Your task to perform on an android device: Turn off the flashlight Image 0: 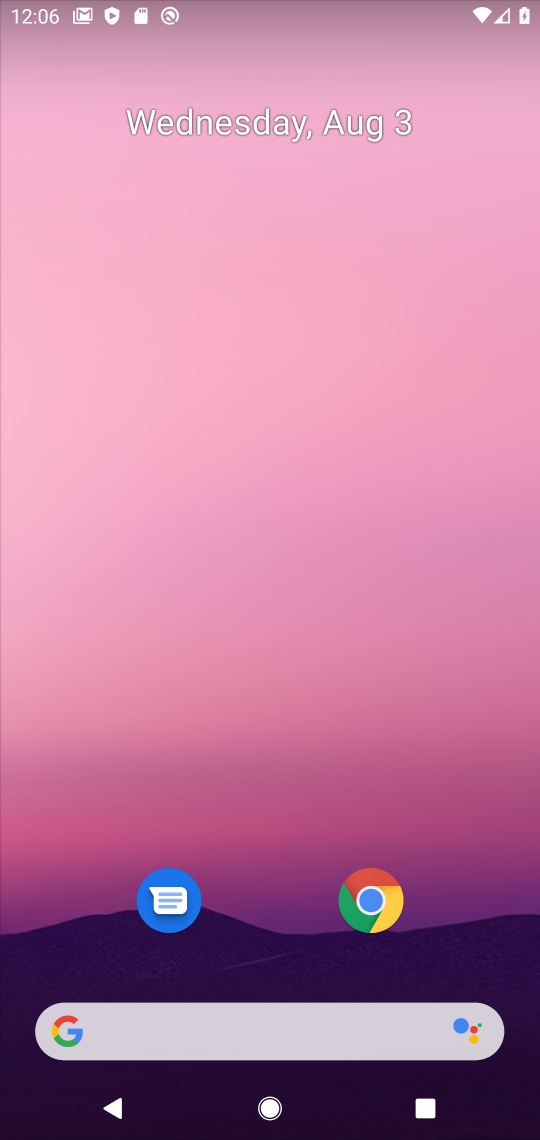
Step 0: drag from (247, 732) to (315, 158)
Your task to perform on an android device: Turn off the flashlight Image 1: 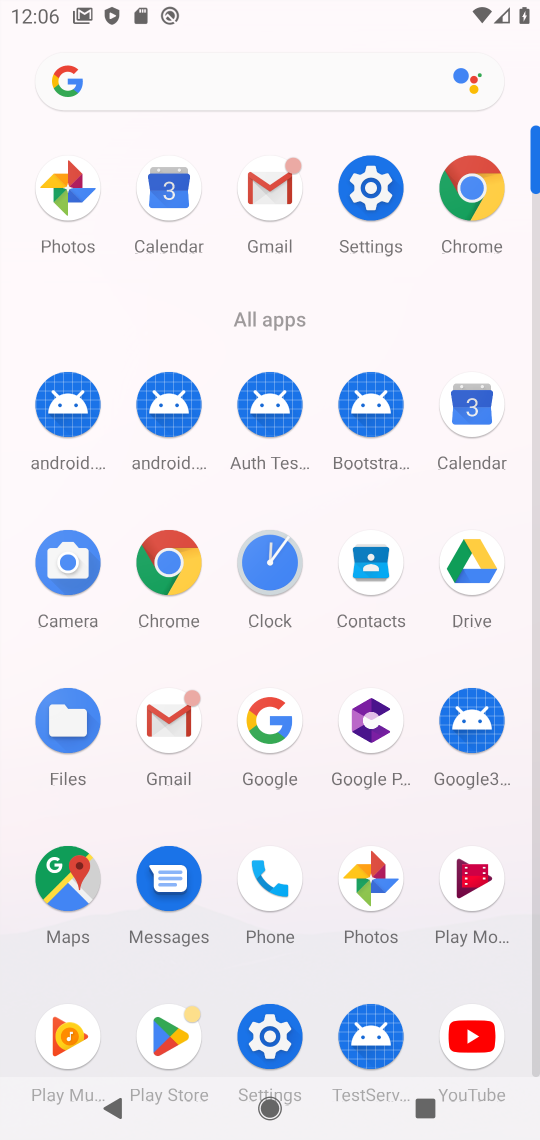
Step 1: click (359, 196)
Your task to perform on an android device: Turn off the flashlight Image 2: 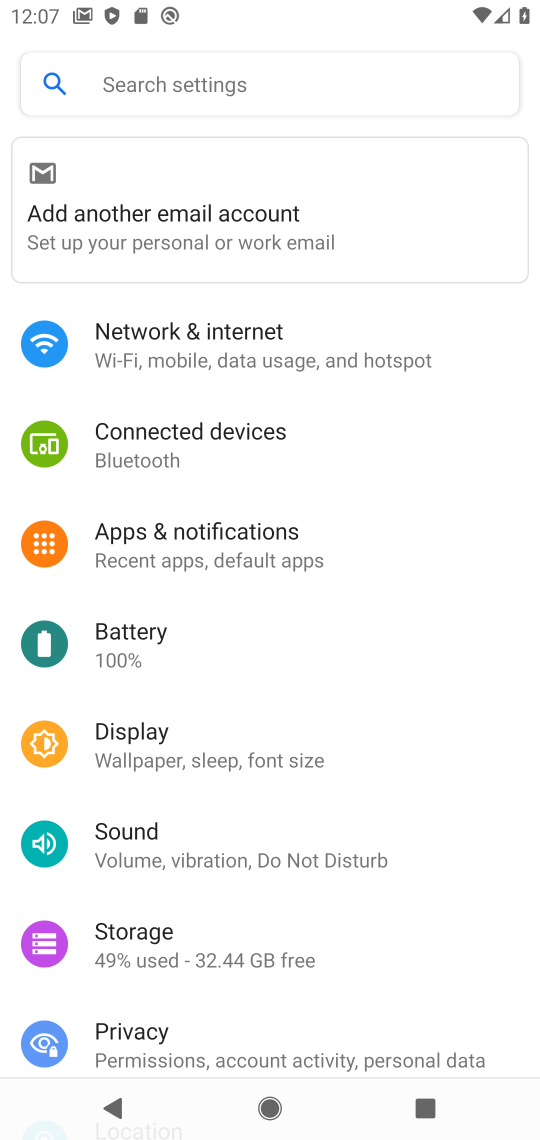
Step 2: click (165, 776)
Your task to perform on an android device: Turn off the flashlight Image 3: 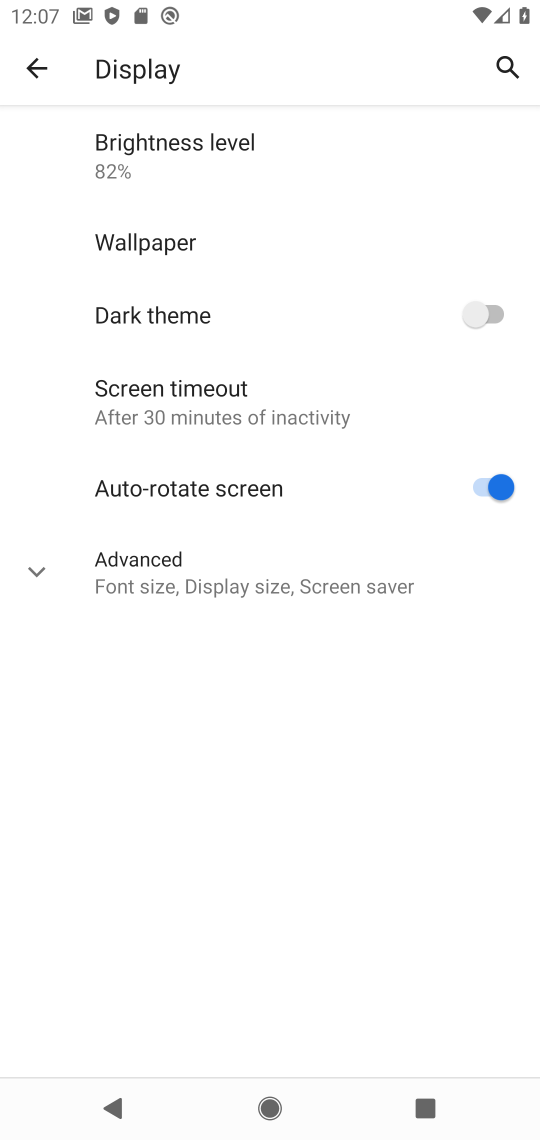
Step 3: task complete